Your task to perform on an android device: Check the weather Image 0: 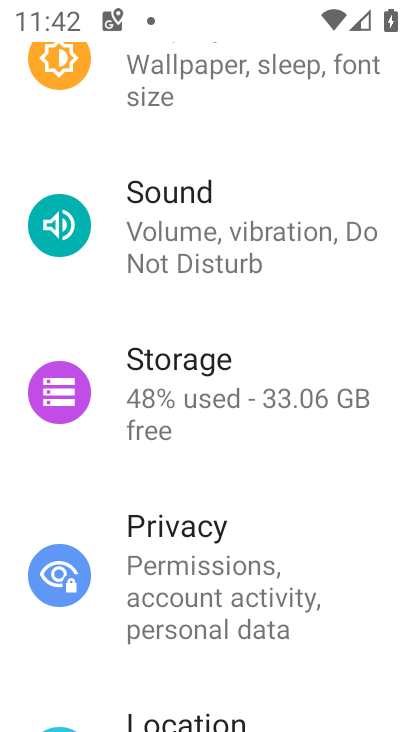
Step 0: press home button
Your task to perform on an android device: Check the weather Image 1: 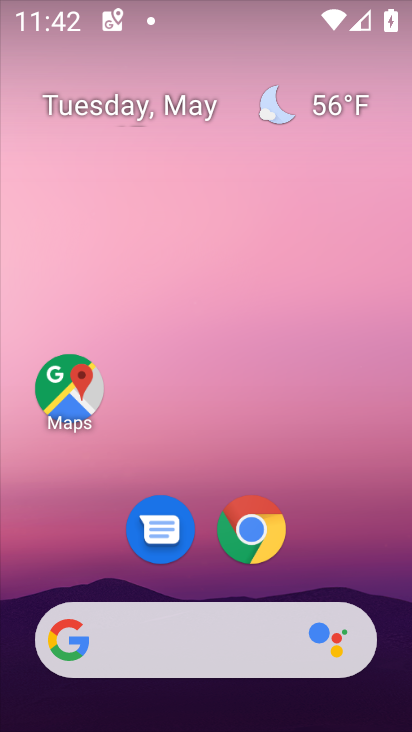
Step 1: press back button
Your task to perform on an android device: Check the weather Image 2: 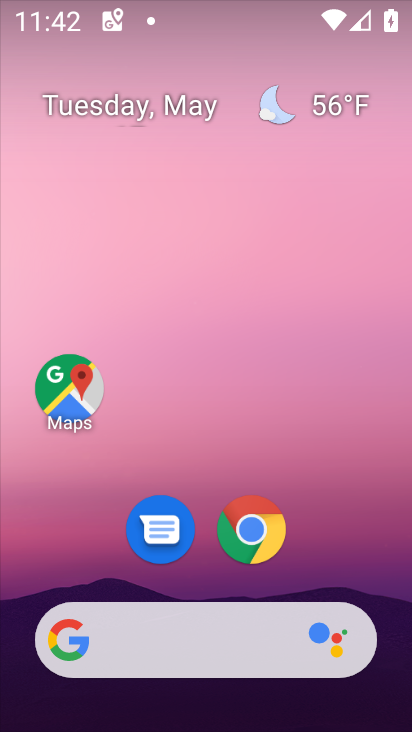
Step 2: click (325, 103)
Your task to perform on an android device: Check the weather Image 3: 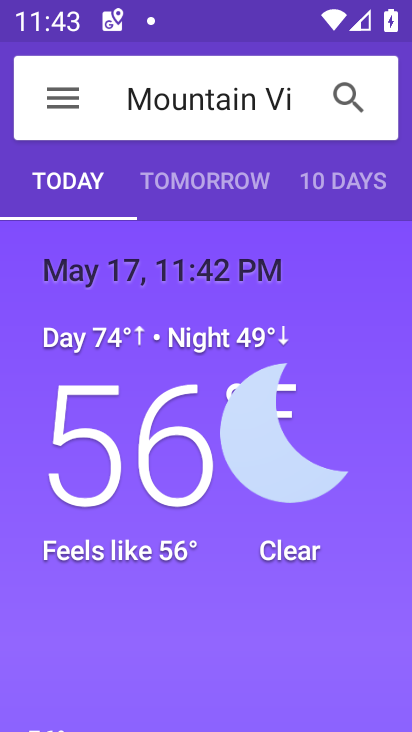
Step 3: task complete